Your task to perform on an android device: open app "Contacts" Image 0: 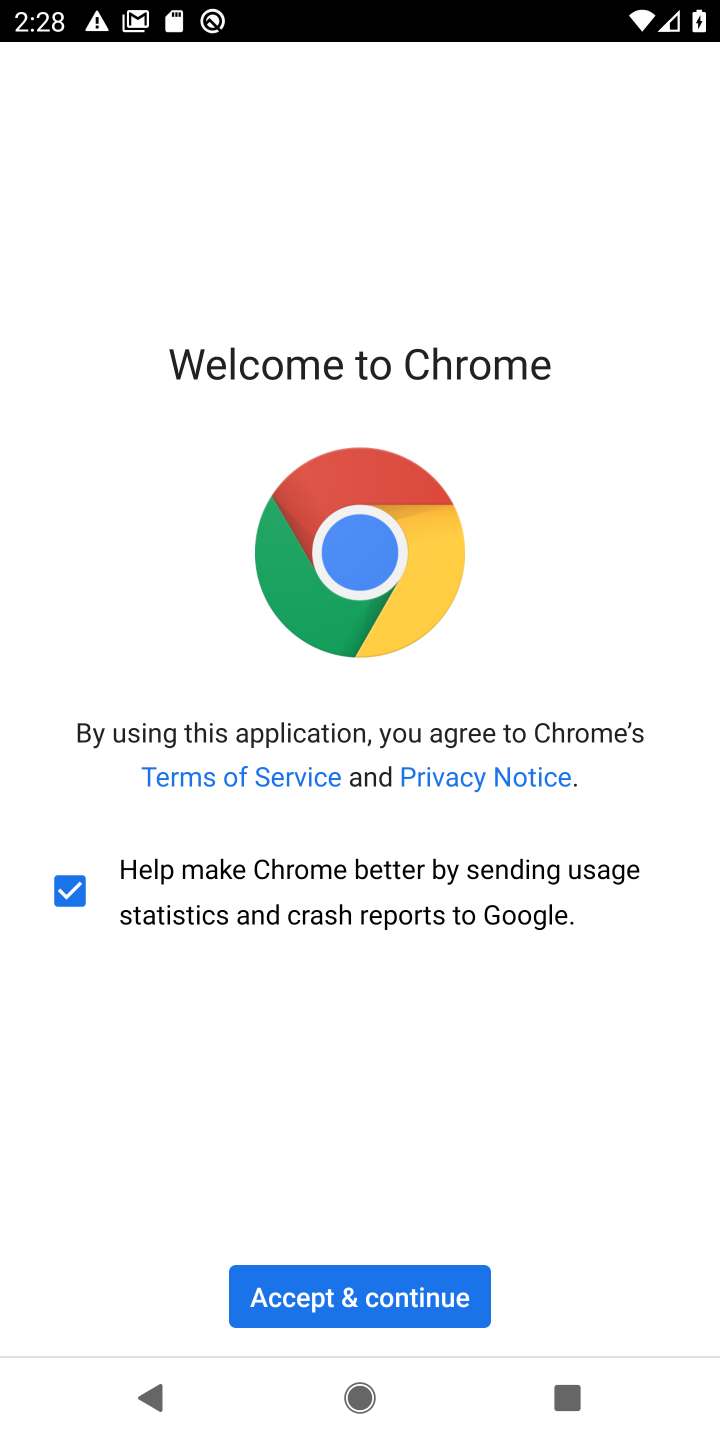
Step 0: press home button
Your task to perform on an android device: open app "Contacts" Image 1: 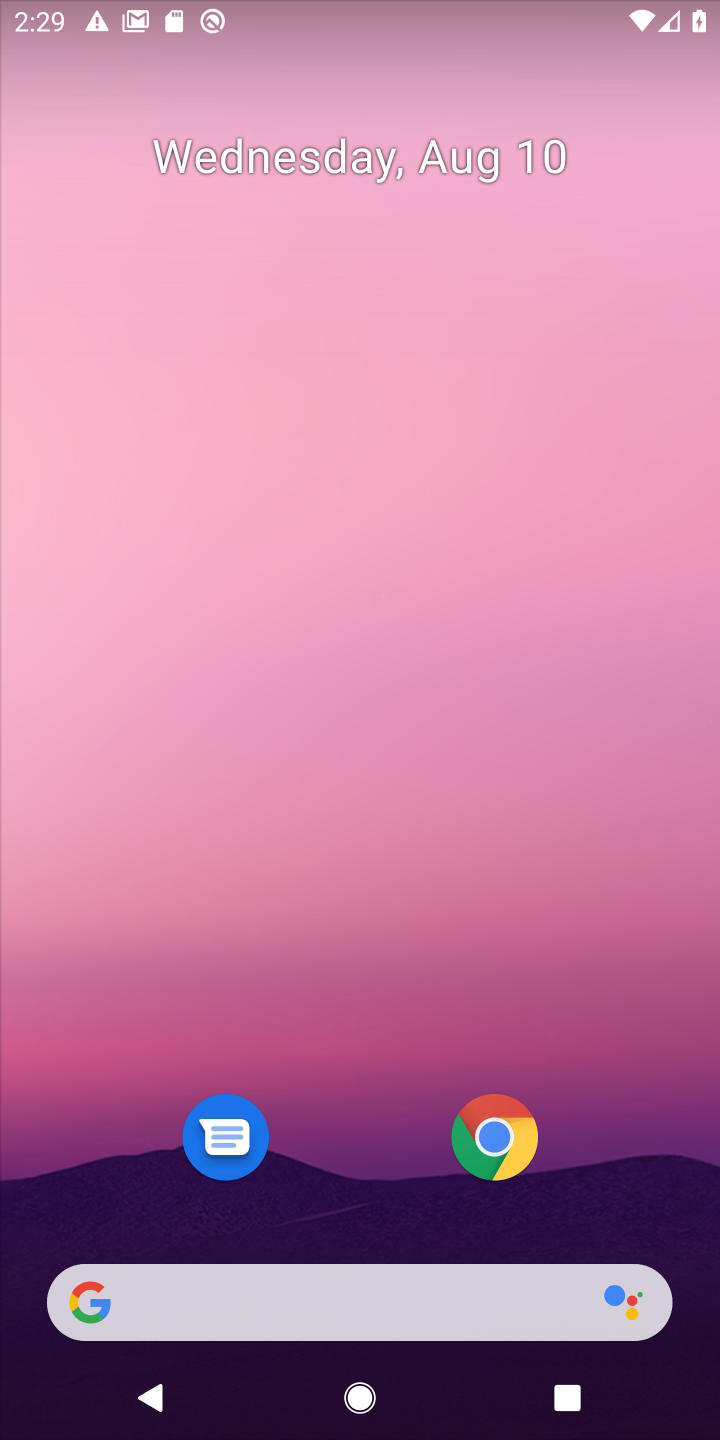
Step 1: drag from (367, 1077) to (431, 197)
Your task to perform on an android device: open app "Contacts" Image 2: 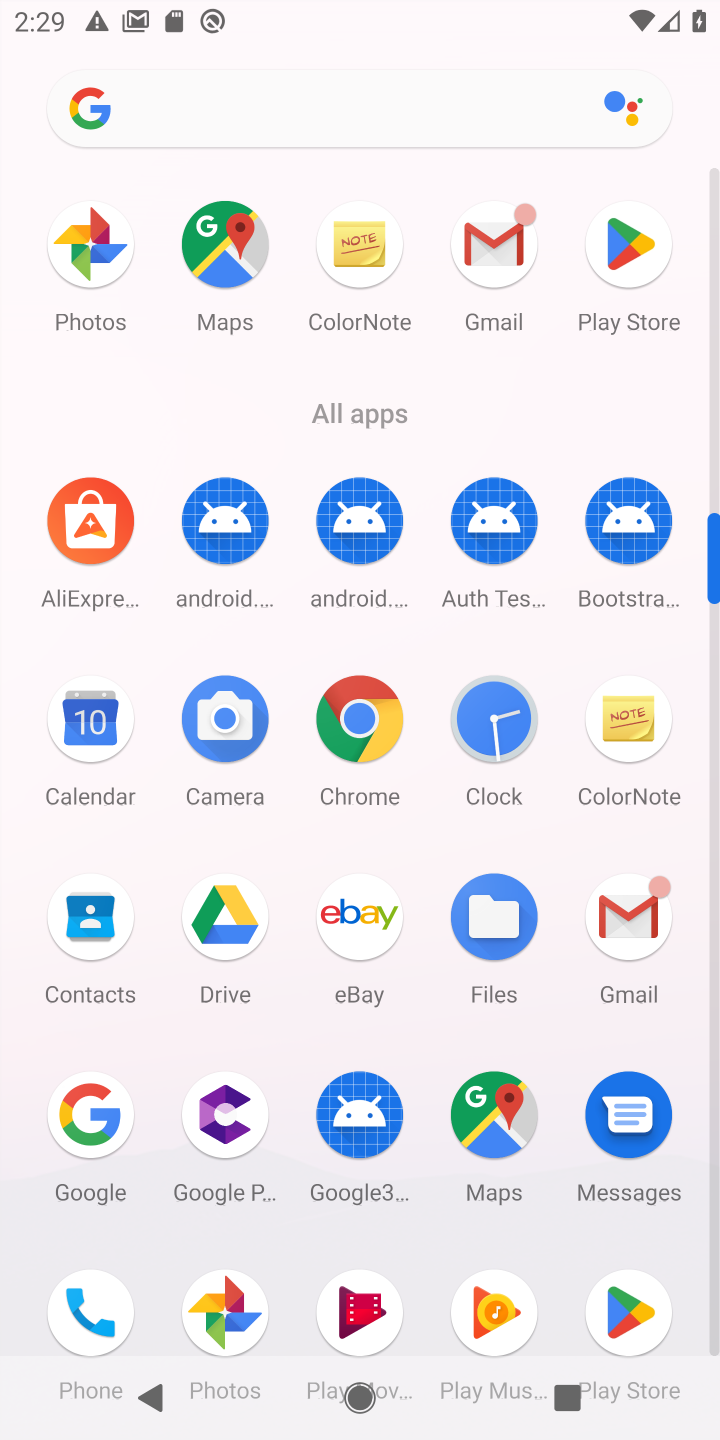
Step 2: click (609, 269)
Your task to perform on an android device: open app "Contacts" Image 3: 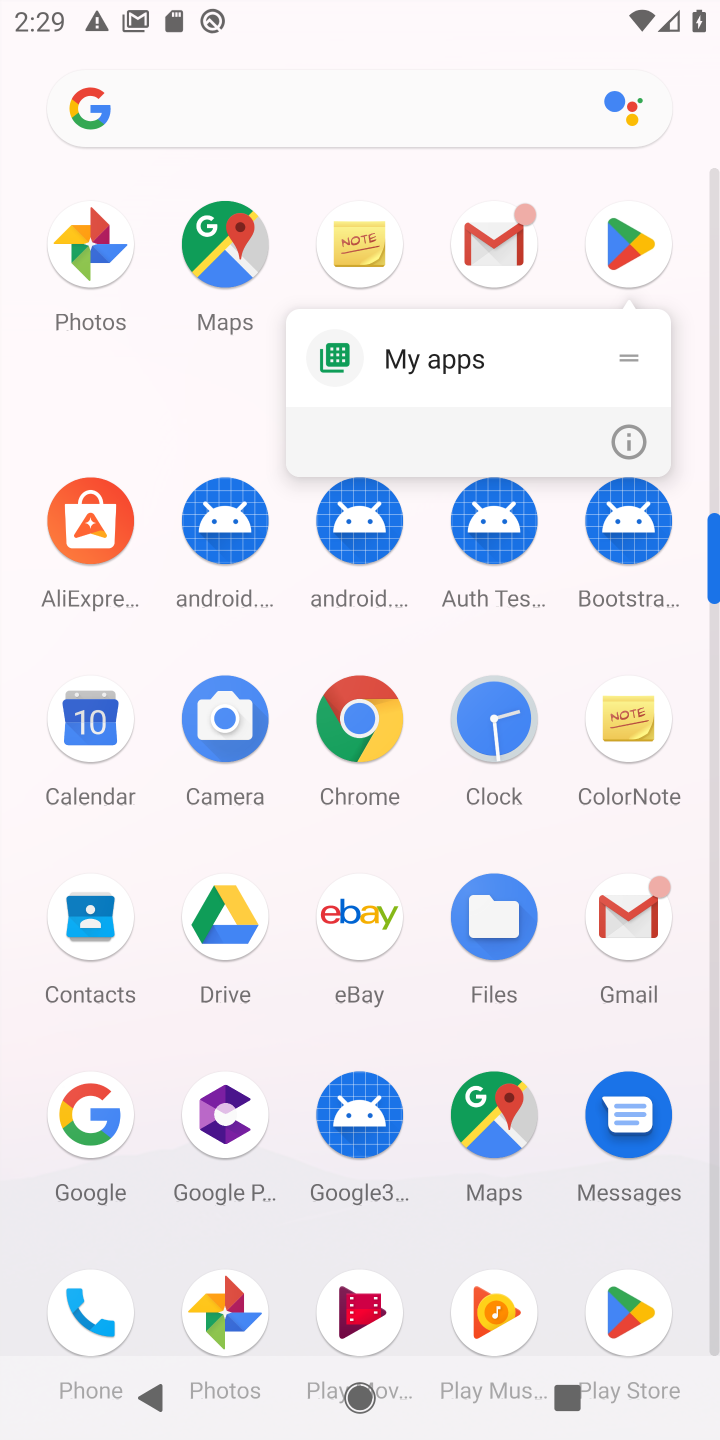
Step 3: click (633, 238)
Your task to perform on an android device: open app "Contacts" Image 4: 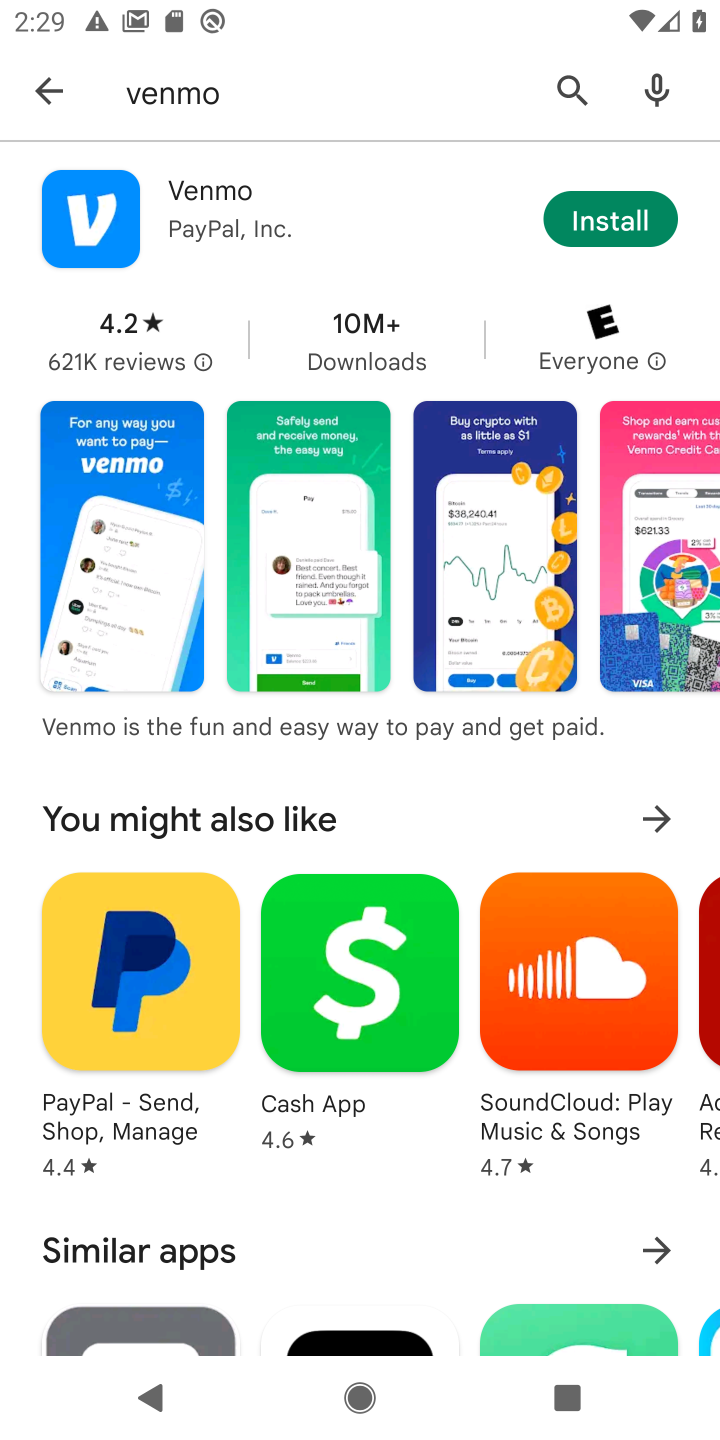
Step 4: click (646, 236)
Your task to perform on an android device: open app "Contacts" Image 5: 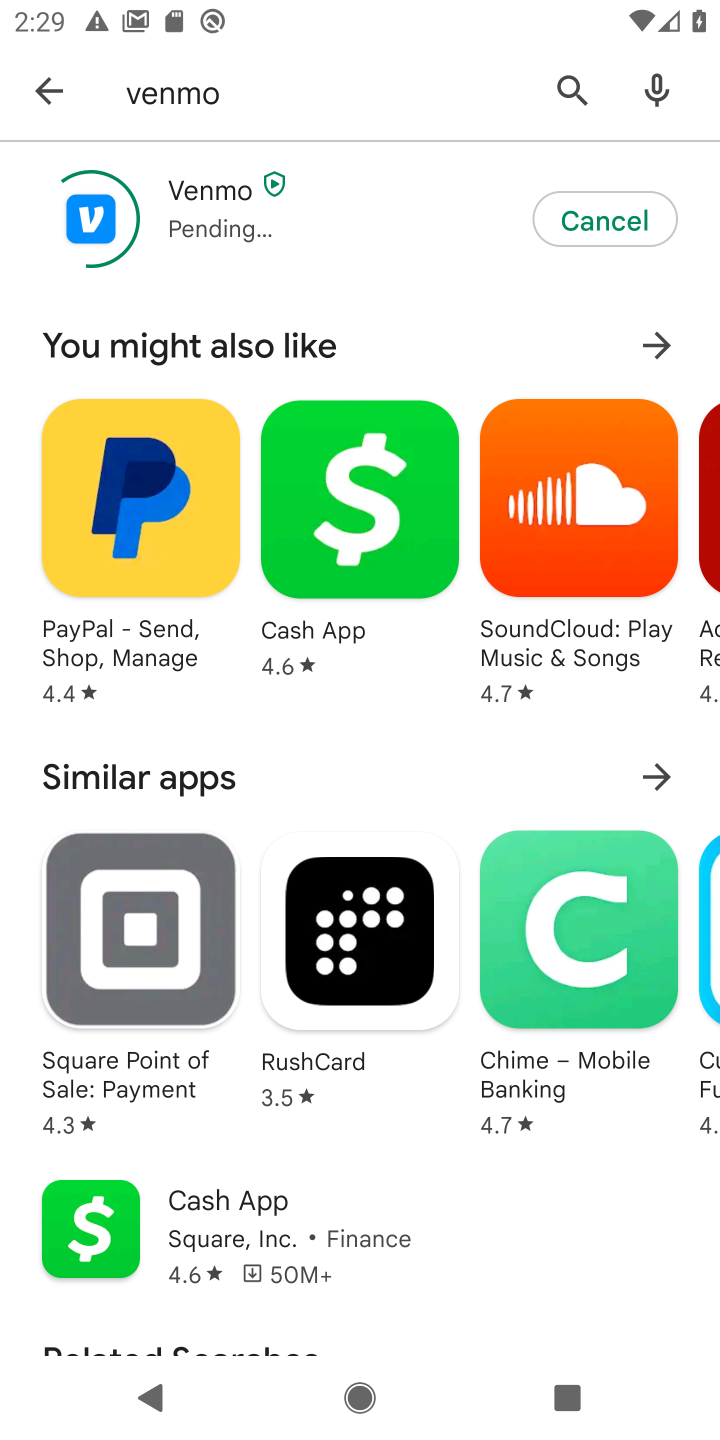
Step 5: click (564, 219)
Your task to perform on an android device: open app "Contacts" Image 6: 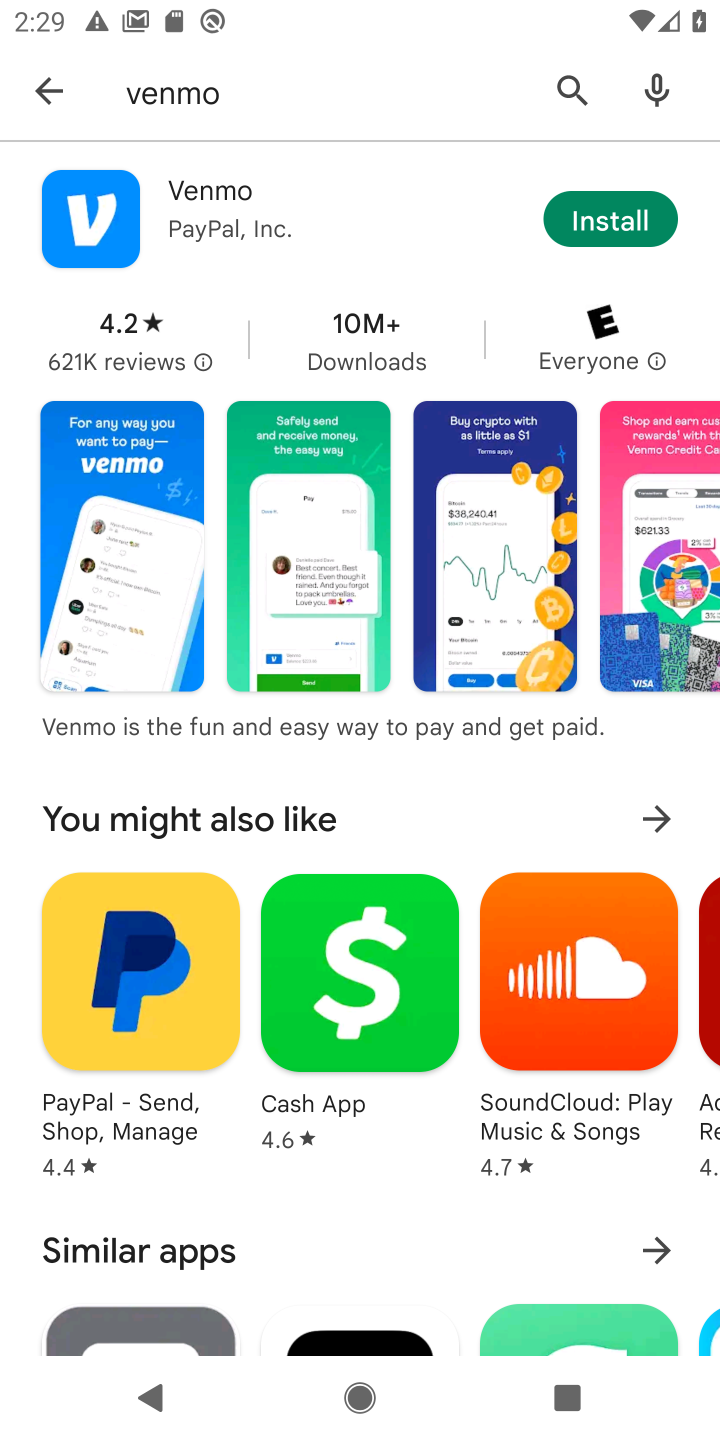
Step 6: click (161, 86)
Your task to perform on an android device: open app "Contacts" Image 7: 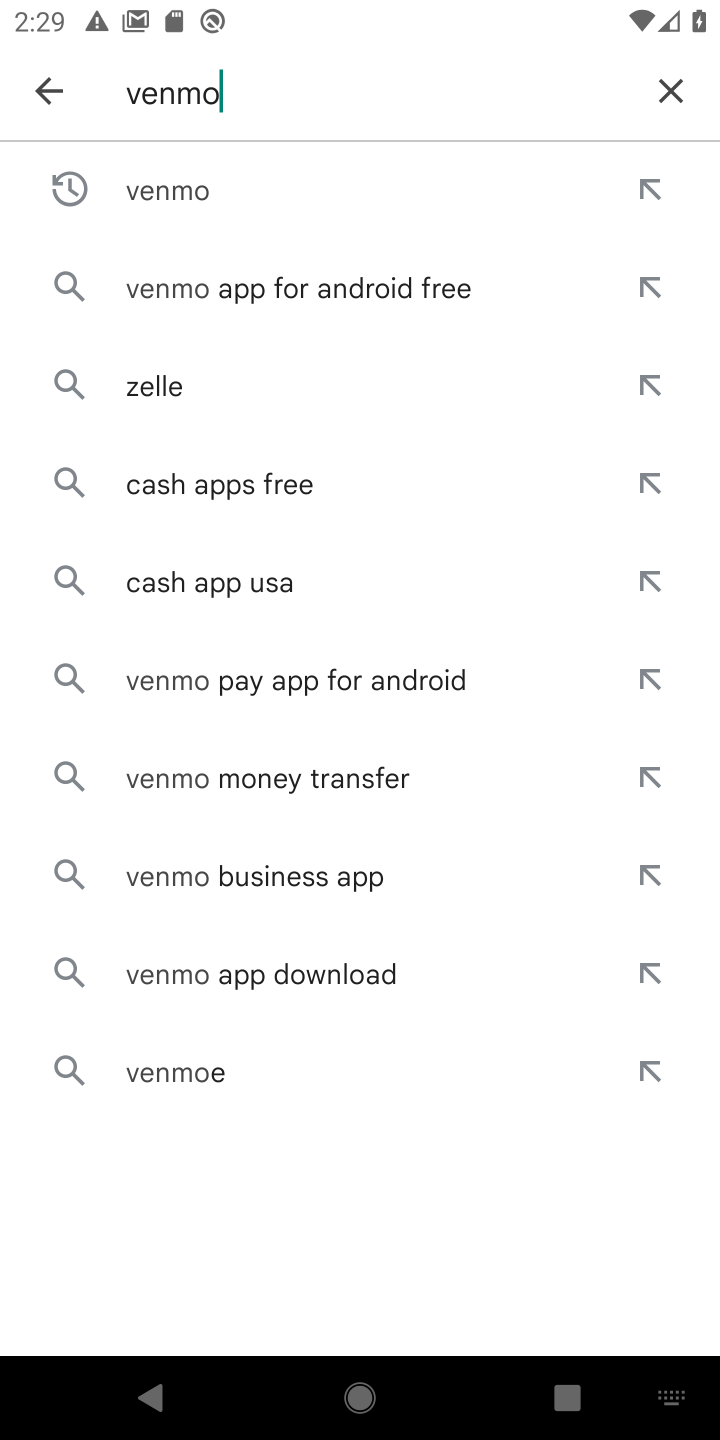
Step 7: click (677, 88)
Your task to perform on an android device: open app "Contacts" Image 8: 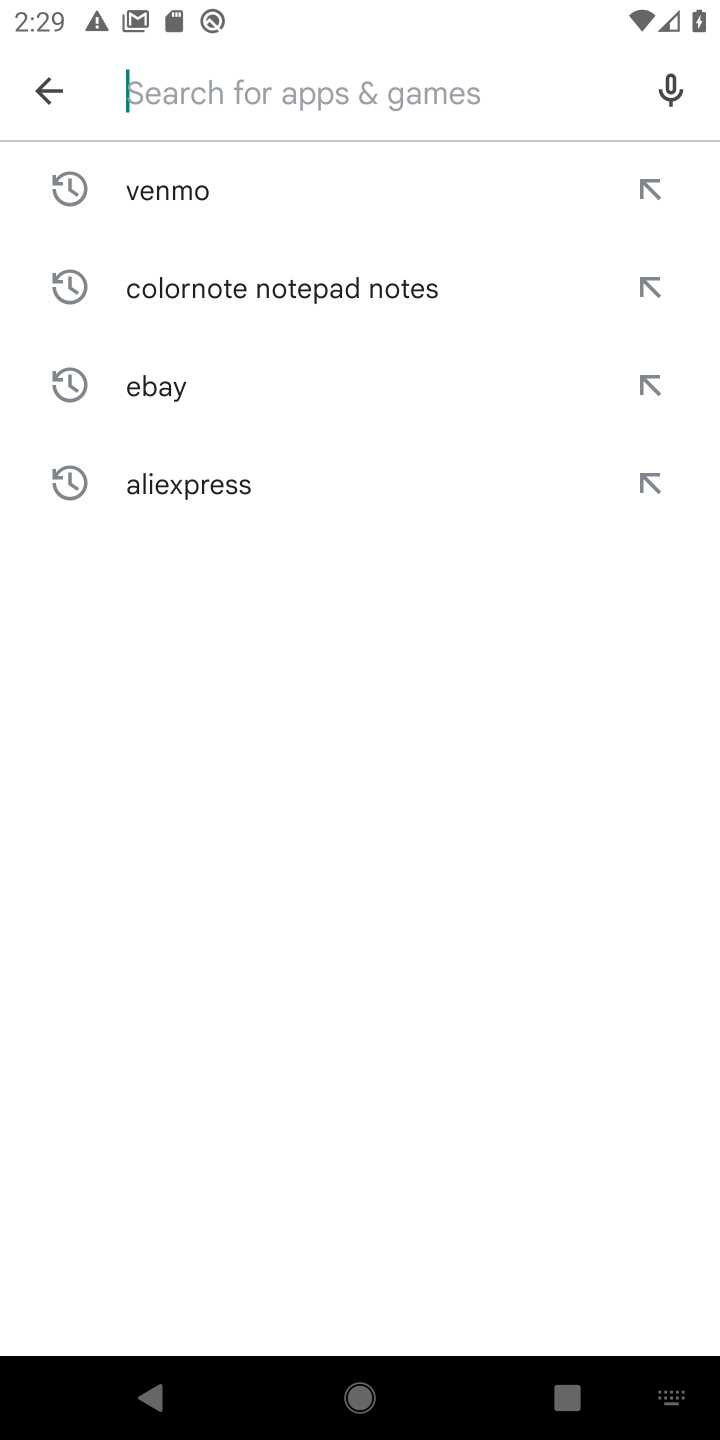
Step 8: type "contacts"
Your task to perform on an android device: open app "Contacts" Image 9: 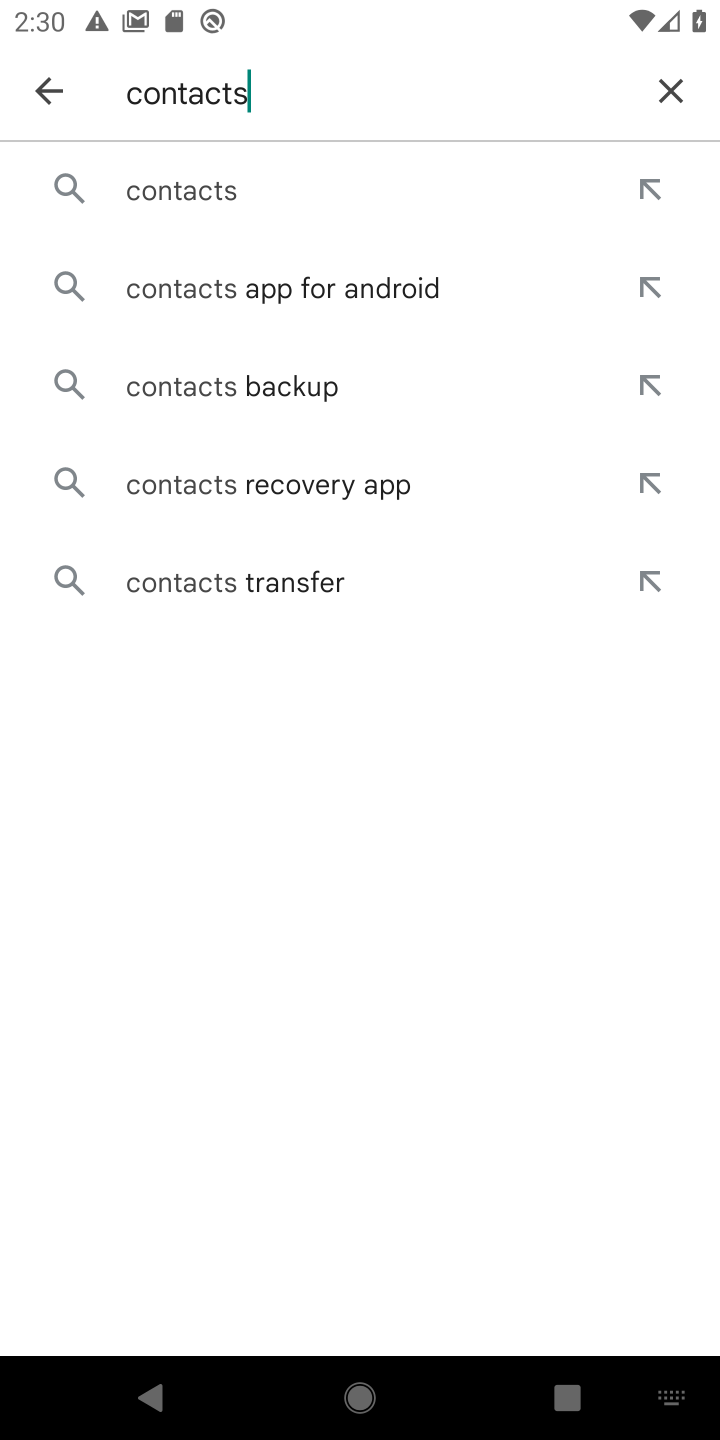
Step 9: click (216, 181)
Your task to perform on an android device: open app "Contacts" Image 10: 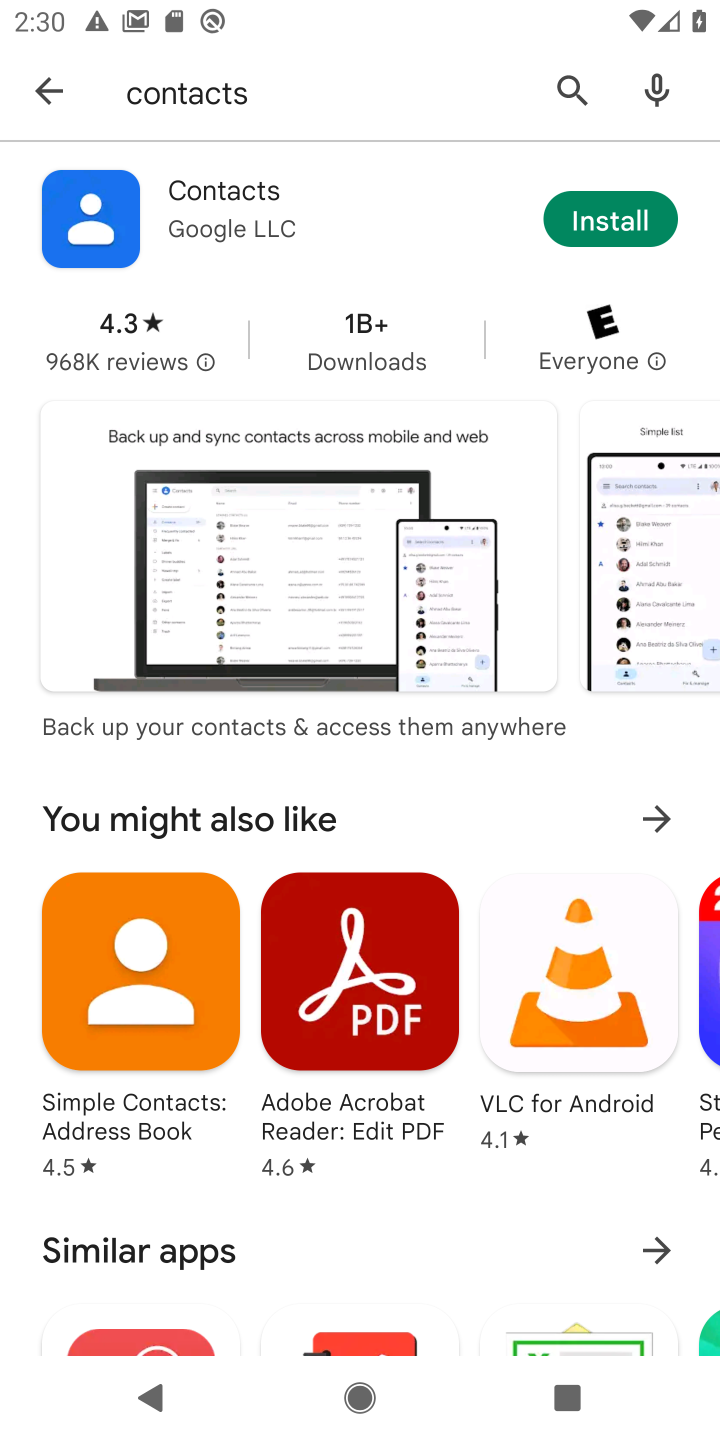
Step 10: task complete